Your task to perform on an android device: uninstall "File Manager" Image 0: 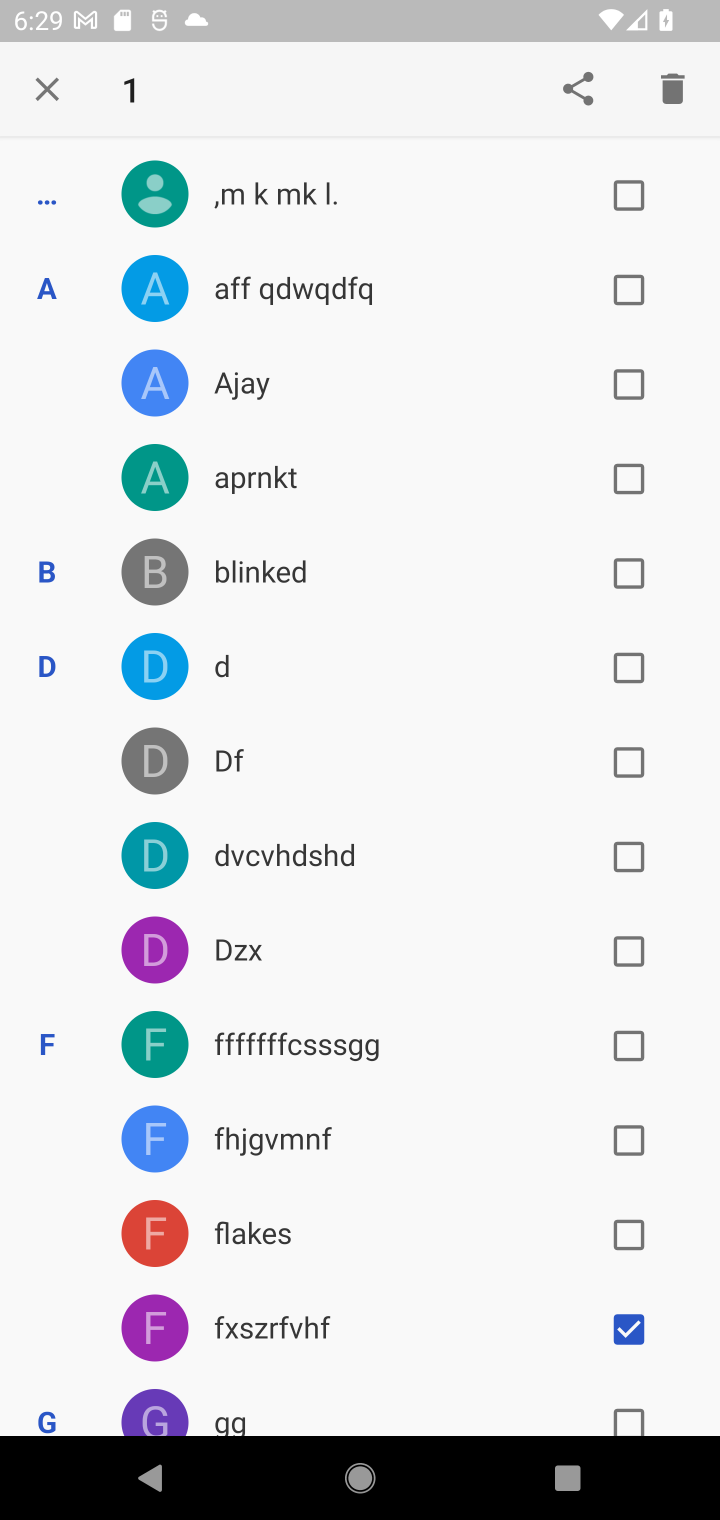
Step 0: press home button
Your task to perform on an android device: uninstall "File Manager" Image 1: 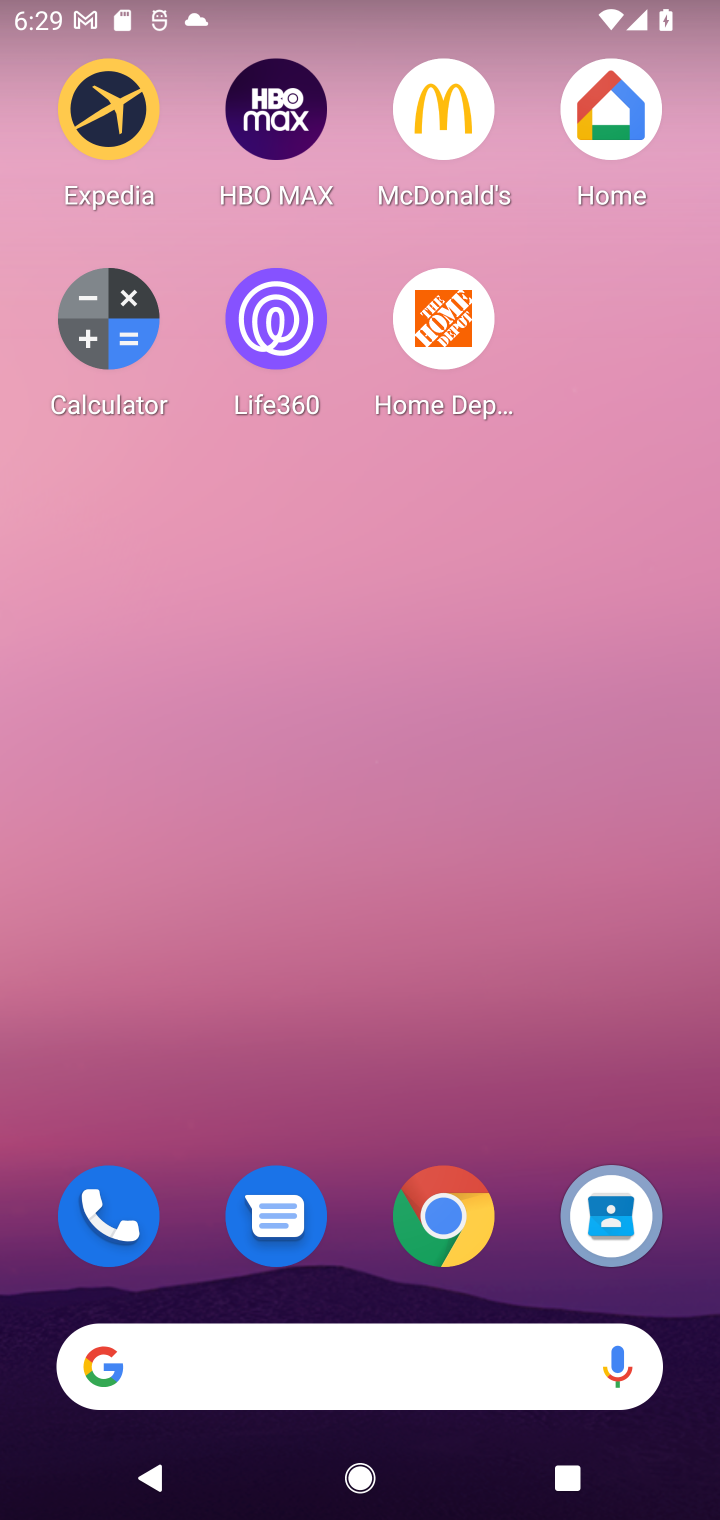
Step 1: drag from (328, 1326) to (328, 480)
Your task to perform on an android device: uninstall "File Manager" Image 2: 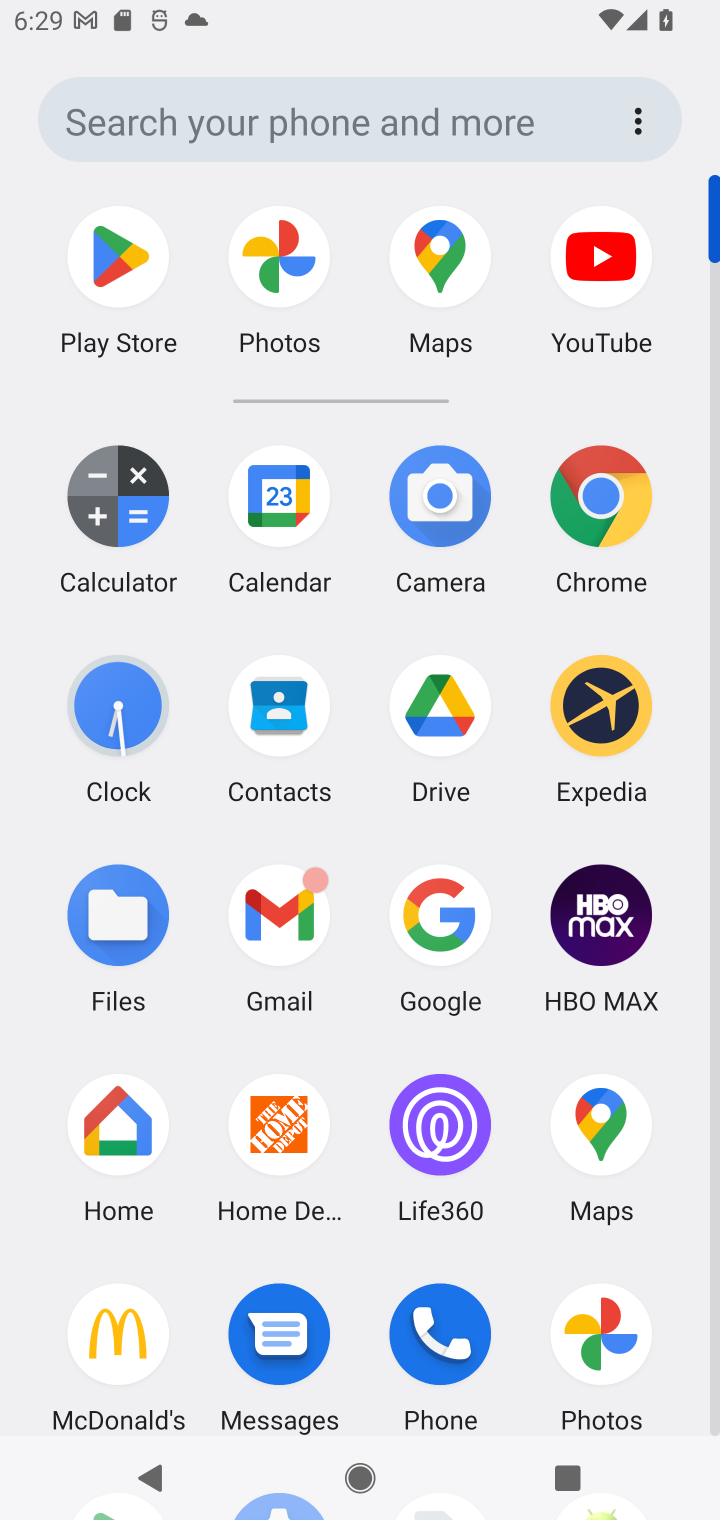
Step 2: drag from (400, 1428) to (386, 548)
Your task to perform on an android device: uninstall "File Manager" Image 3: 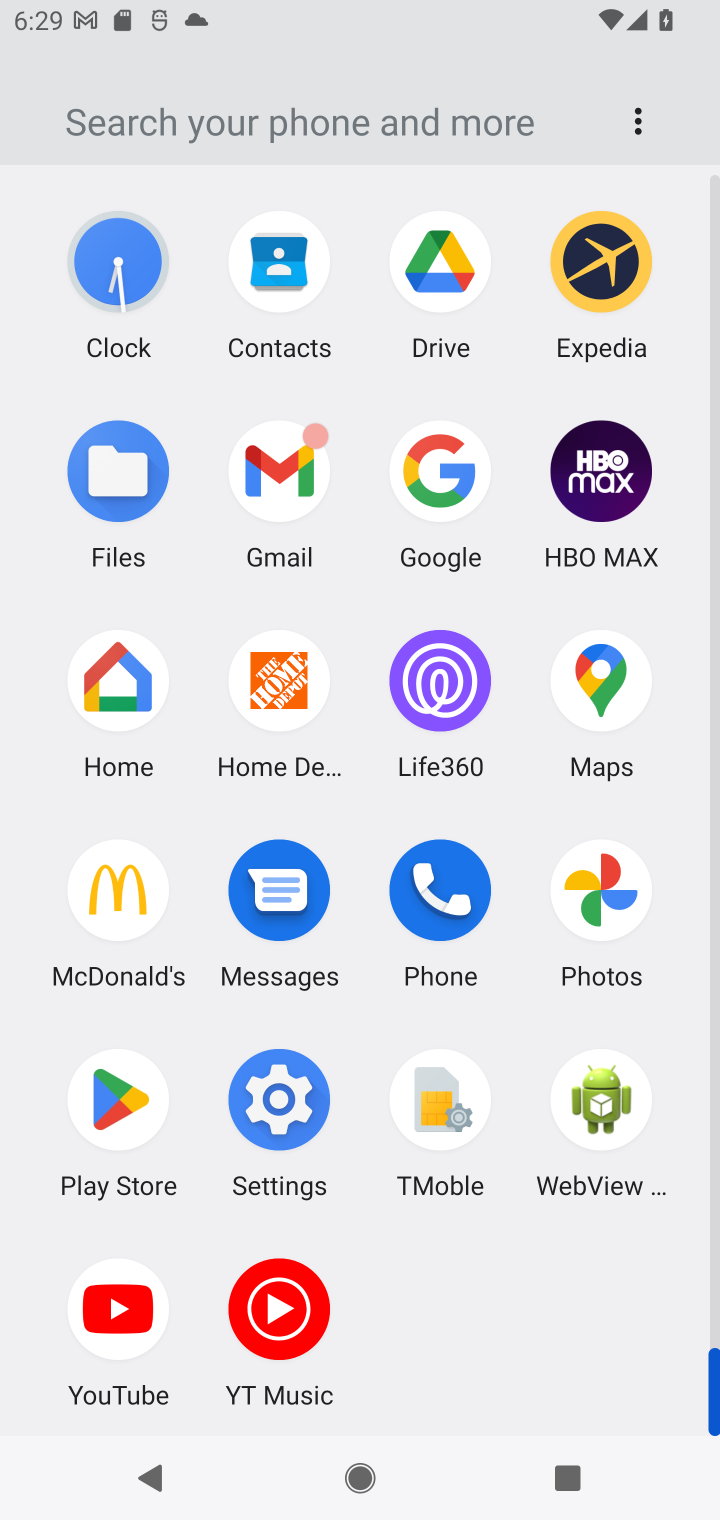
Step 3: click (111, 1094)
Your task to perform on an android device: uninstall "File Manager" Image 4: 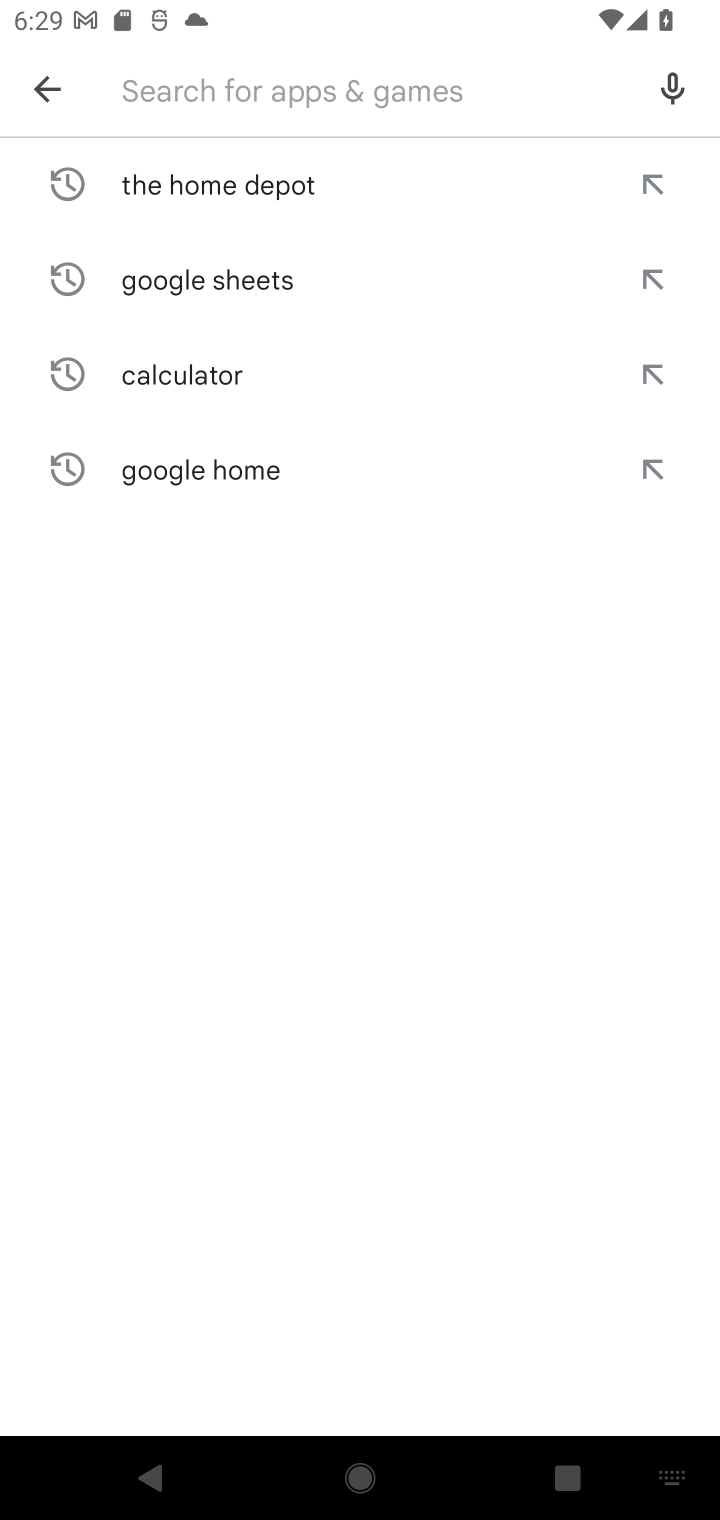
Step 4: type "File Manager"
Your task to perform on an android device: uninstall "File Manager" Image 5: 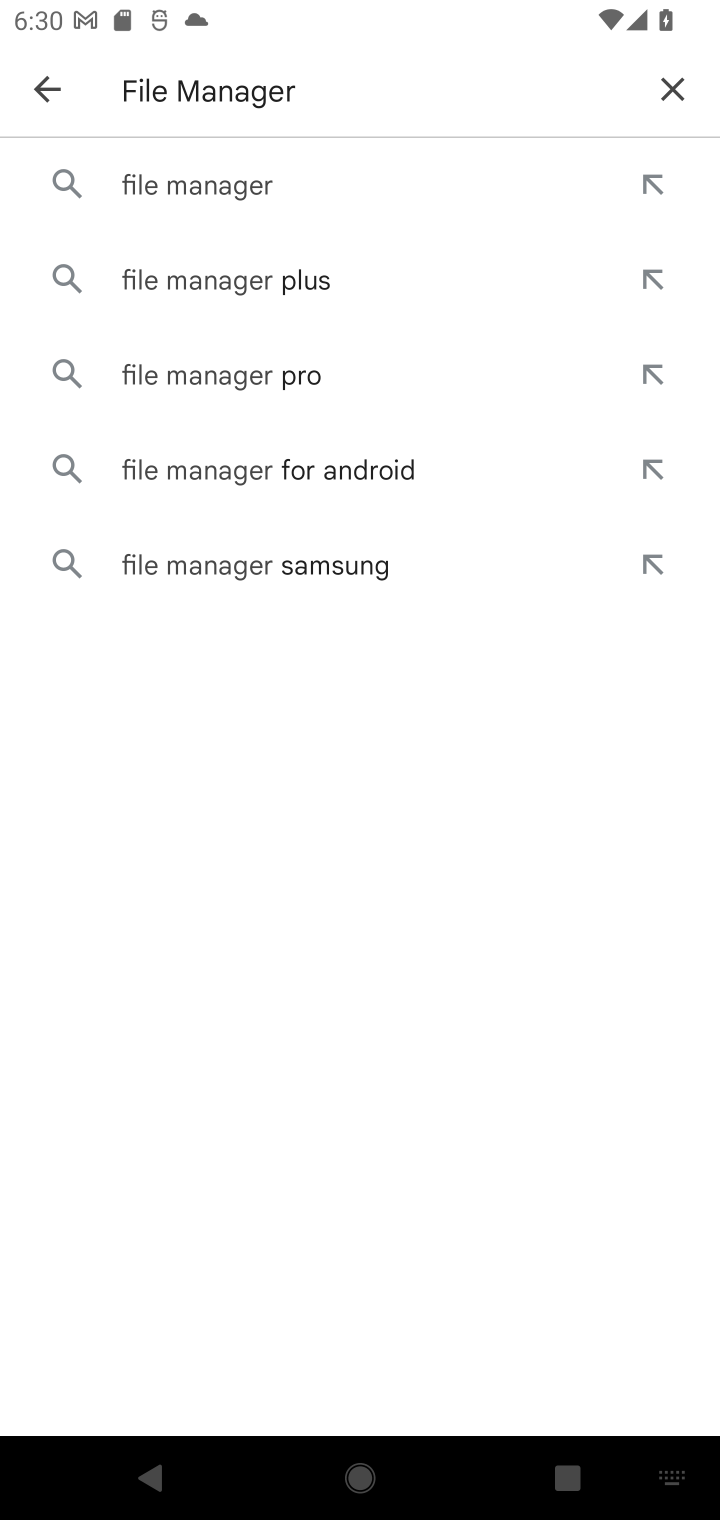
Step 5: click (200, 188)
Your task to perform on an android device: uninstall "File Manager" Image 6: 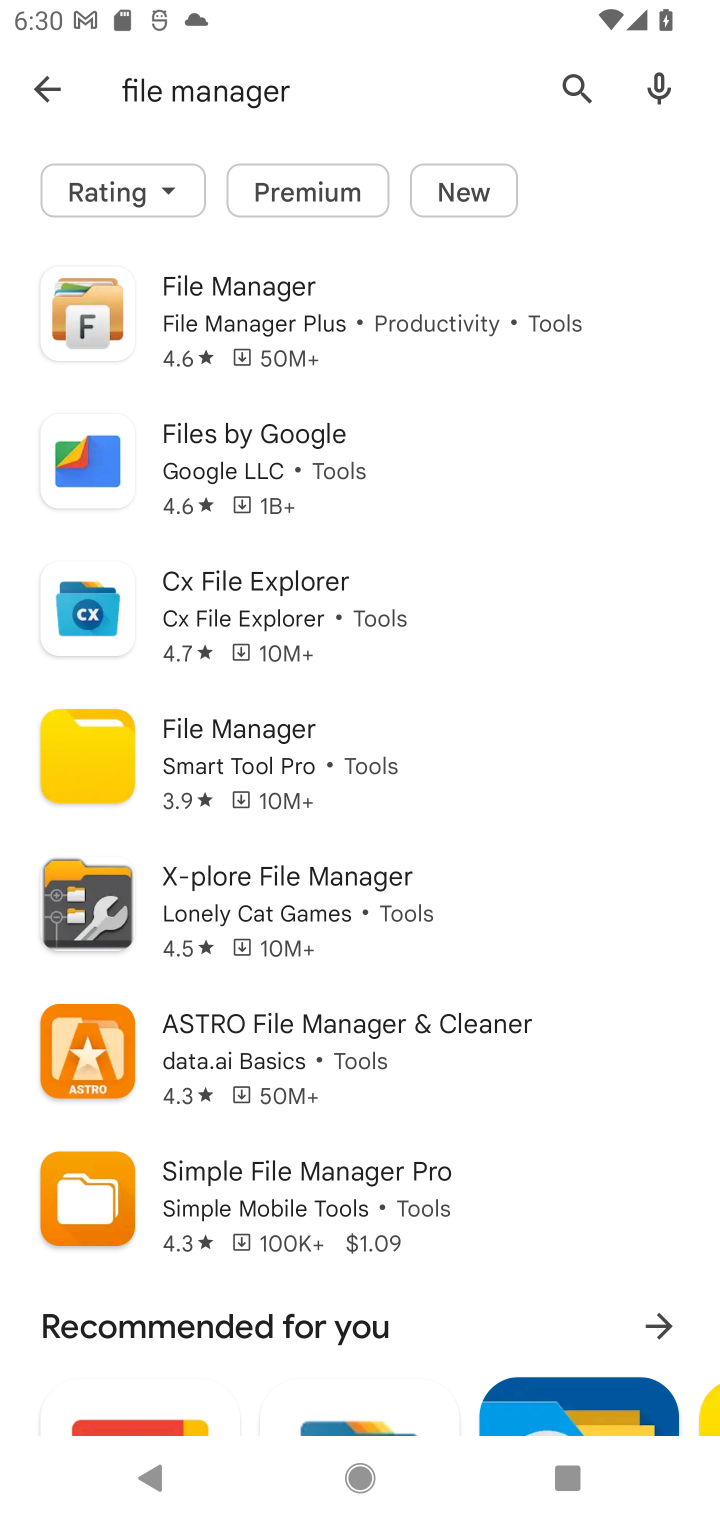
Step 6: task complete